Your task to perform on an android device: empty trash in google photos Image 0: 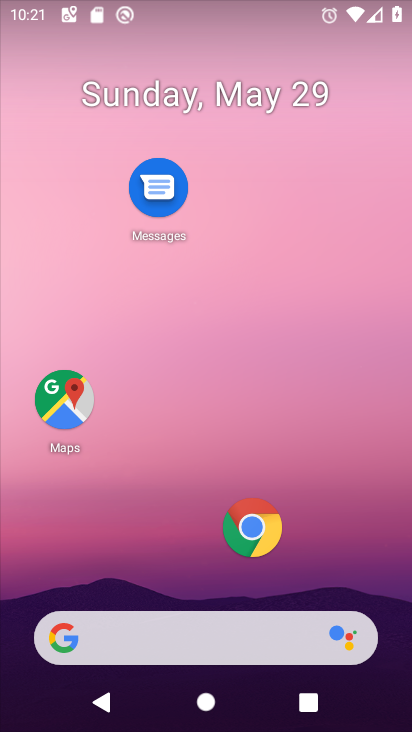
Step 0: drag from (205, 513) to (204, 0)
Your task to perform on an android device: empty trash in google photos Image 1: 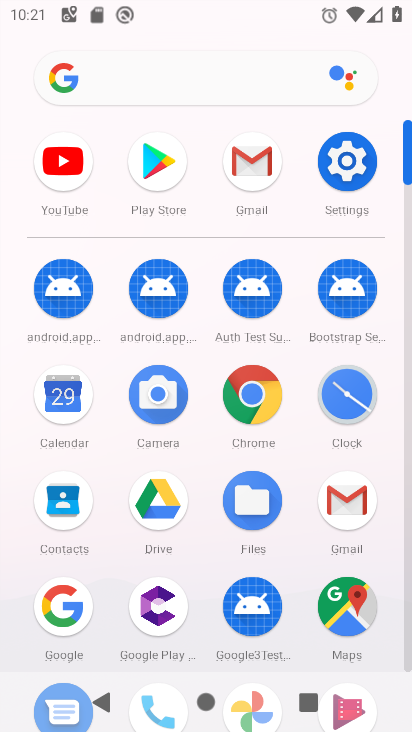
Step 1: drag from (196, 589) to (227, 126)
Your task to perform on an android device: empty trash in google photos Image 2: 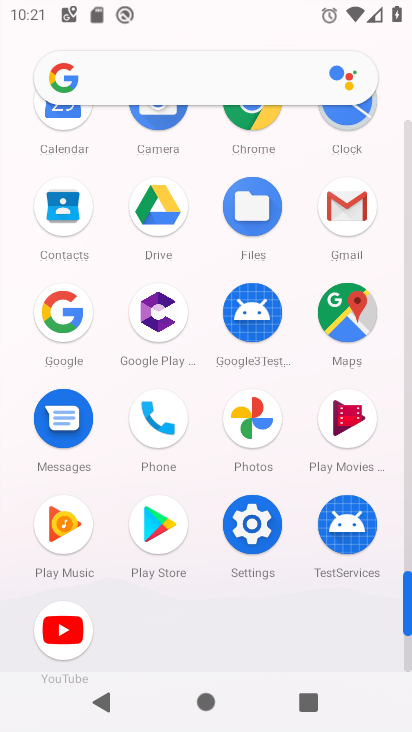
Step 2: click (253, 417)
Your task to perform on an android device: empty trash in google photos Image 3: 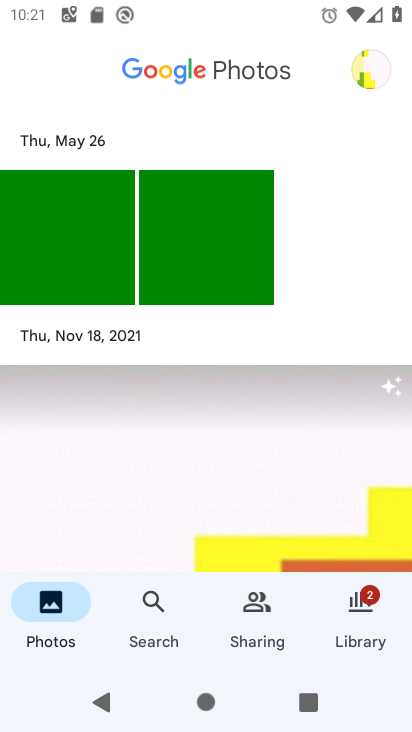
Step 3: click (353, 600)
Your task to perform on an android device: empty trash in google photos Image 4: 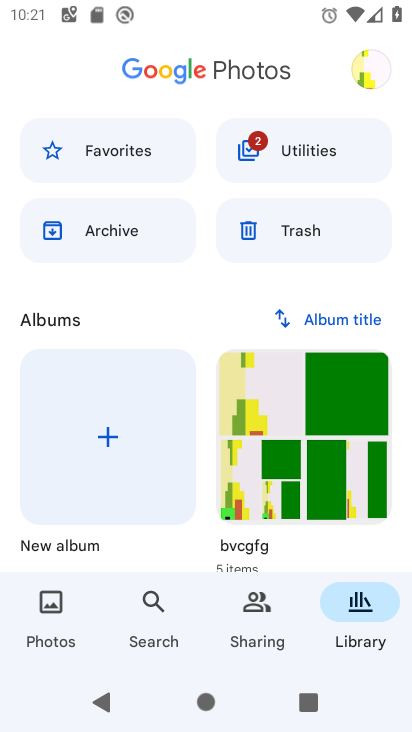
Step 4: click (260, 235)
Your task to perform on an android device: empty trash in google photos Image 5: 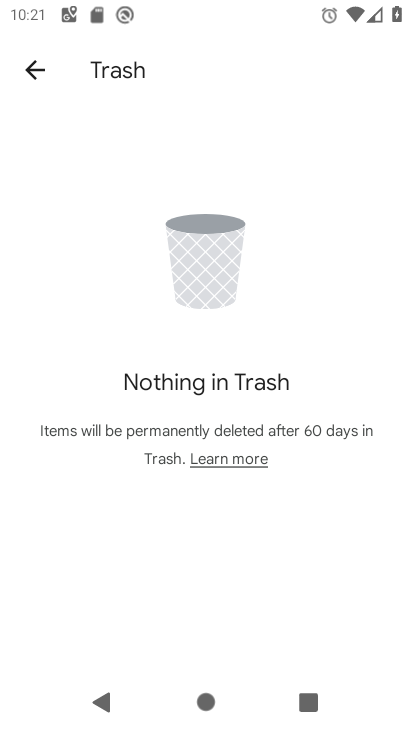
Step 5: task complete